Your task to perform on an android device: Search for hotels in Tokyo Image 0: 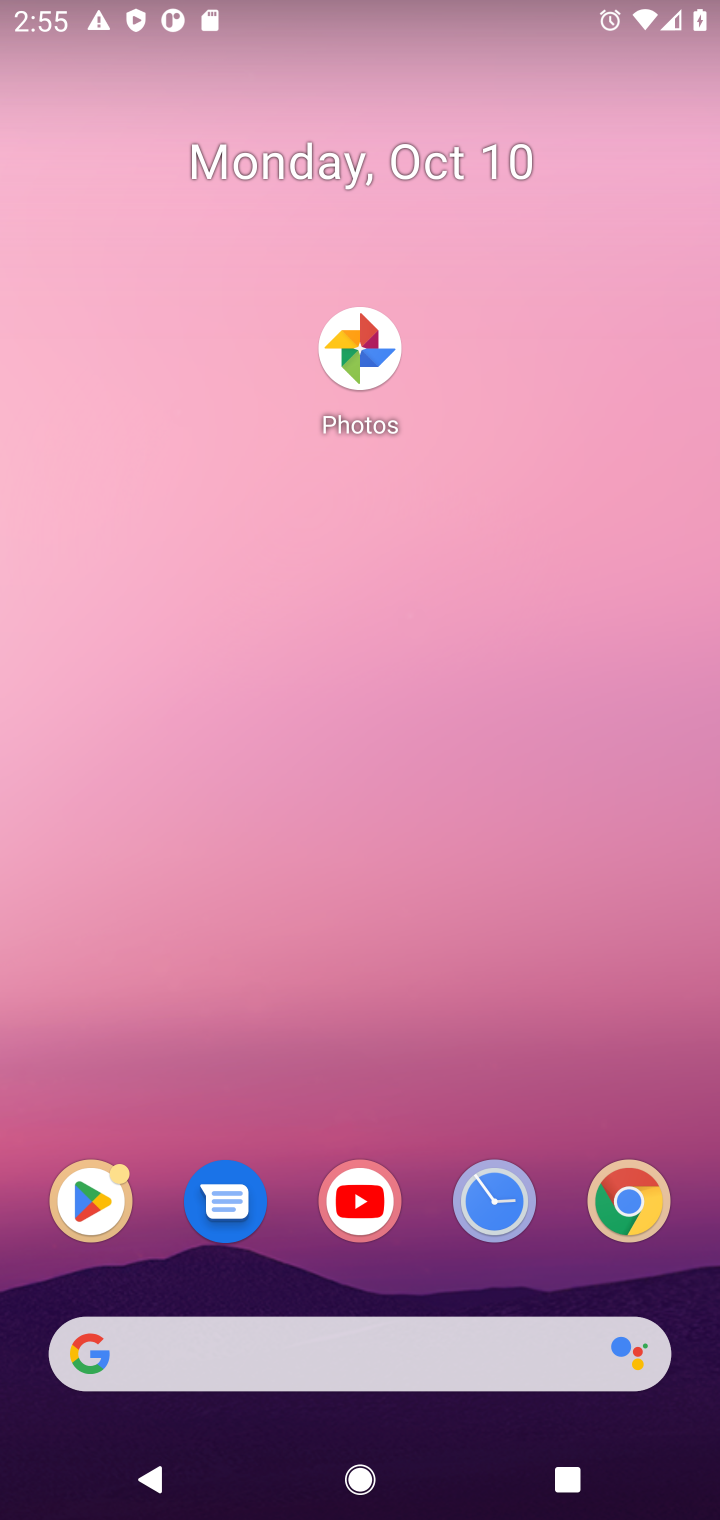
Step 0: click (292, 1331)
Your task to perform on an android device: Search for hotels in Tokyo Image 1: 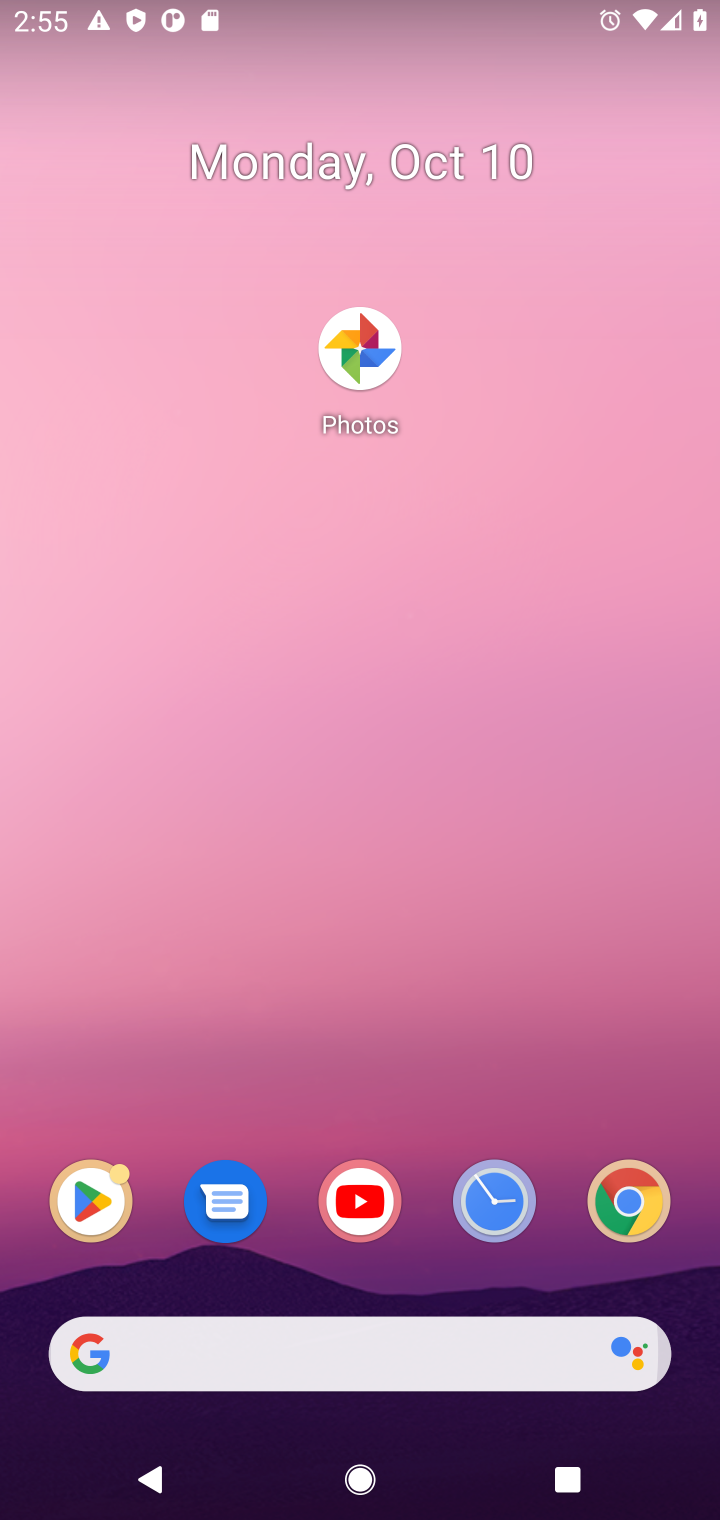
Step 1: click (292, 1329)
Your task to perform on an android device: Search for hotels in Tokyo Image 2: 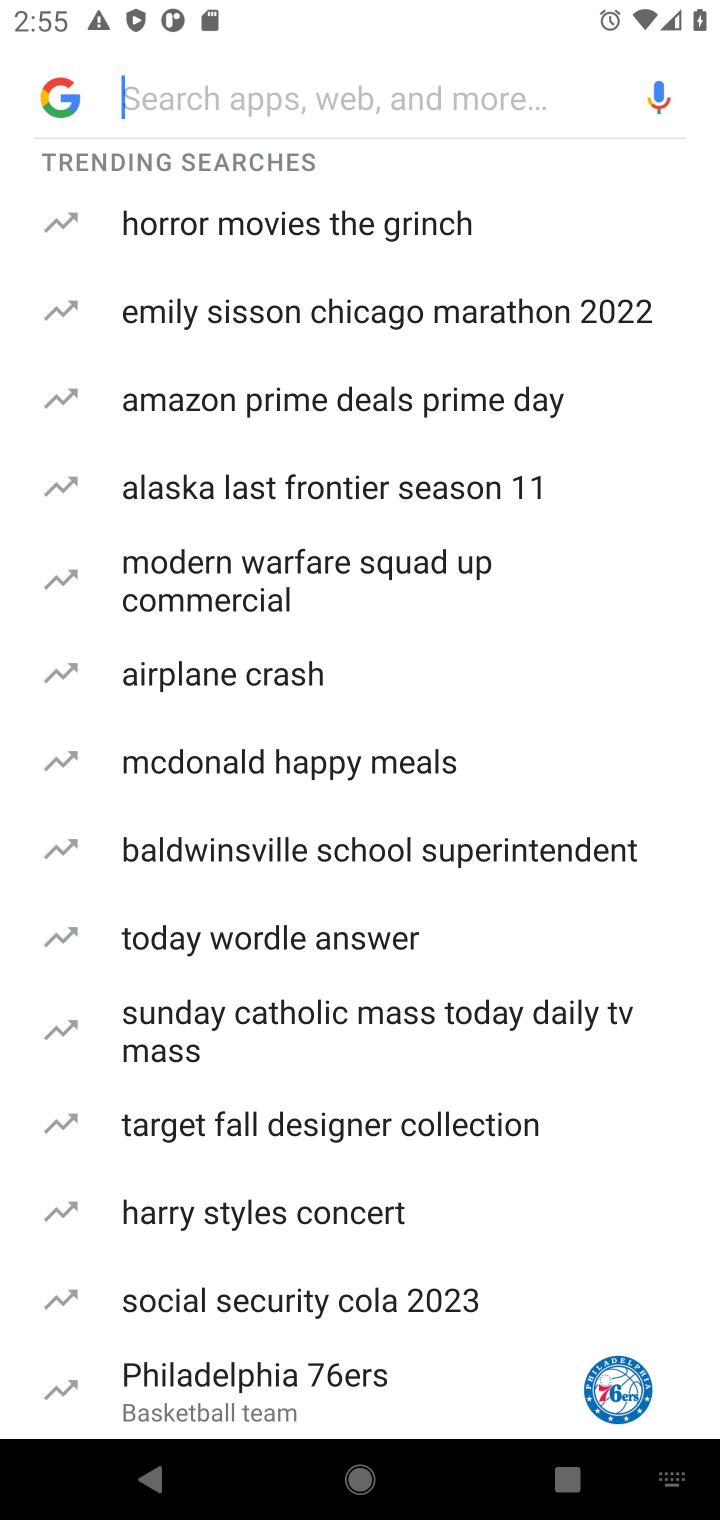
Step 2: type "hotels in Tokyo"
Your task to perform on an android device: Search for hotels in Tokyo Image 3: 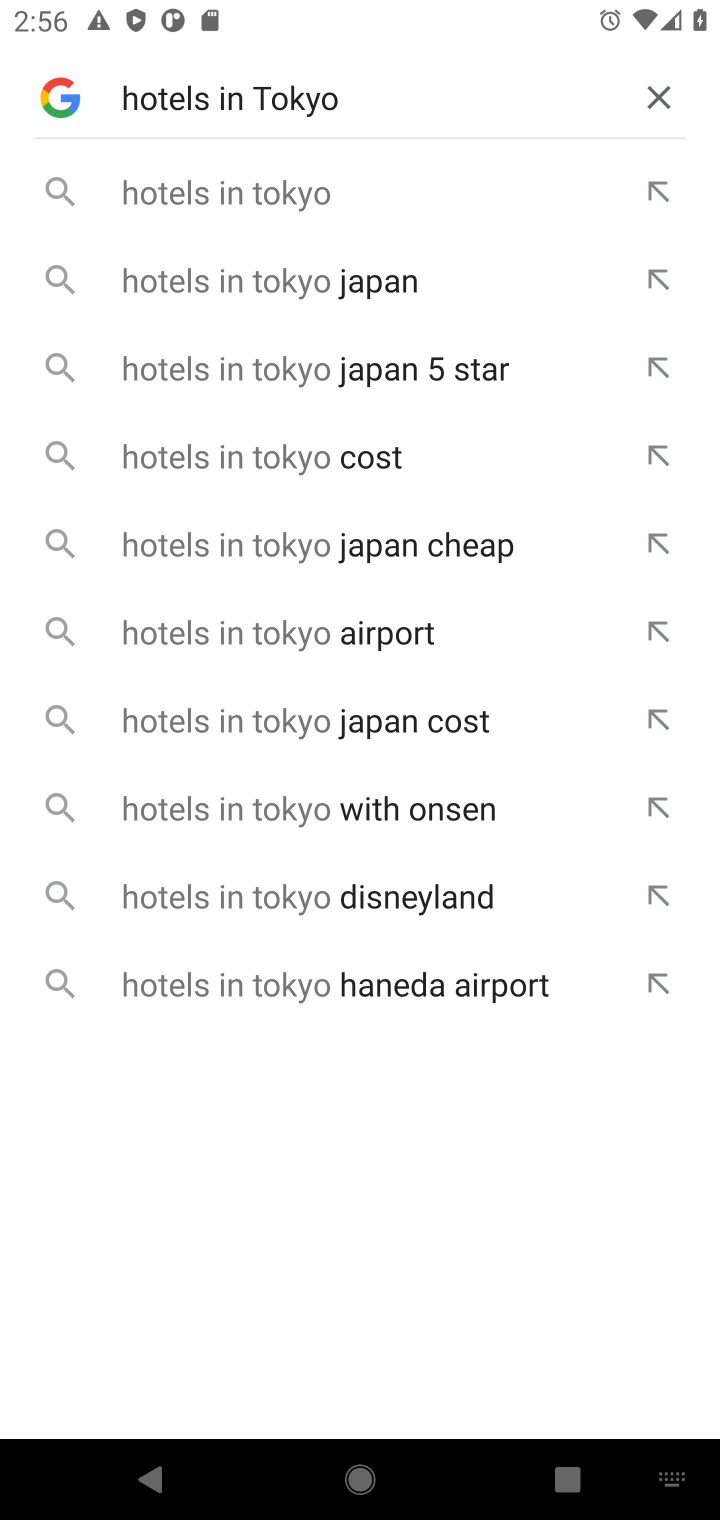
Step 3: press enter
Your task to perform on an android device: Search for hotels in Tokyo Image 4: 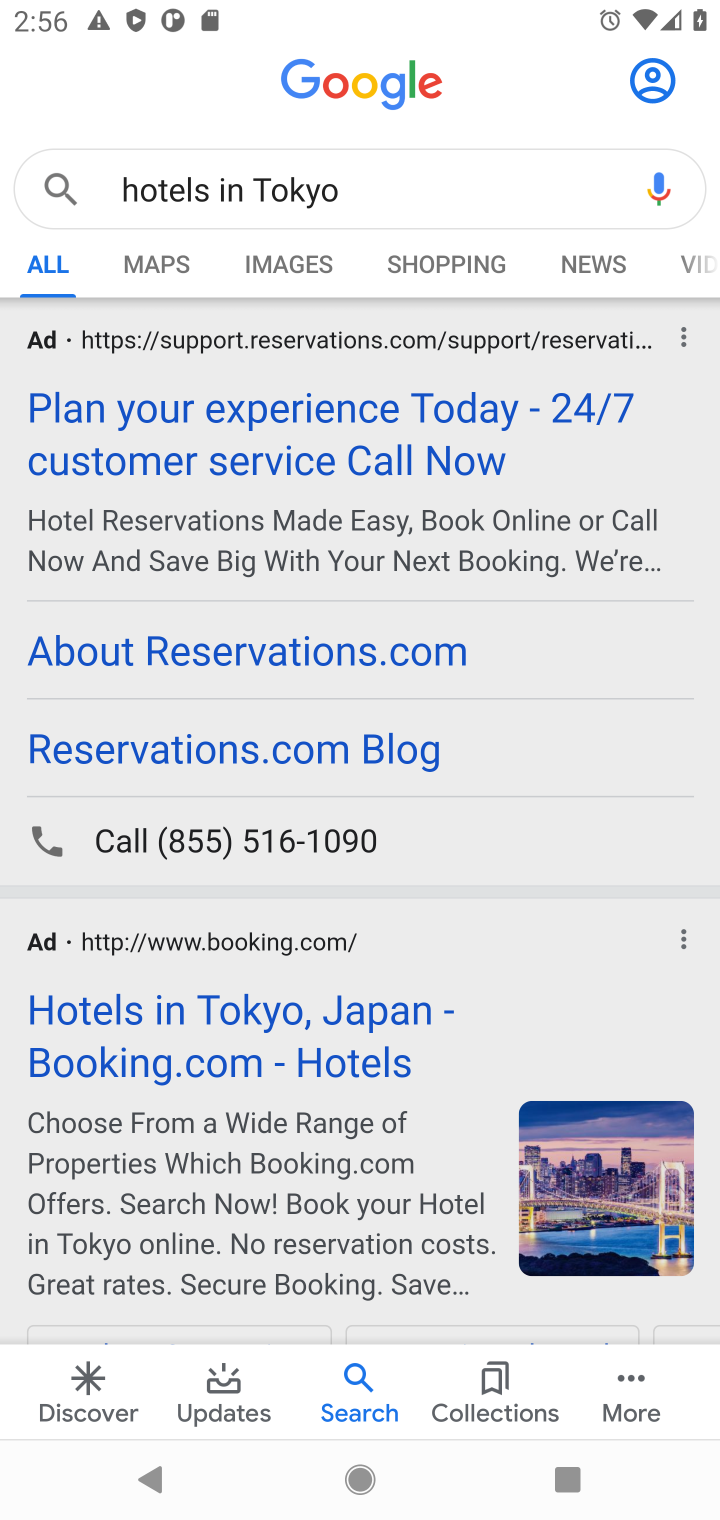
Step 4: task complete